Your task to perform on an android device: open device folders in google photos Image 0: 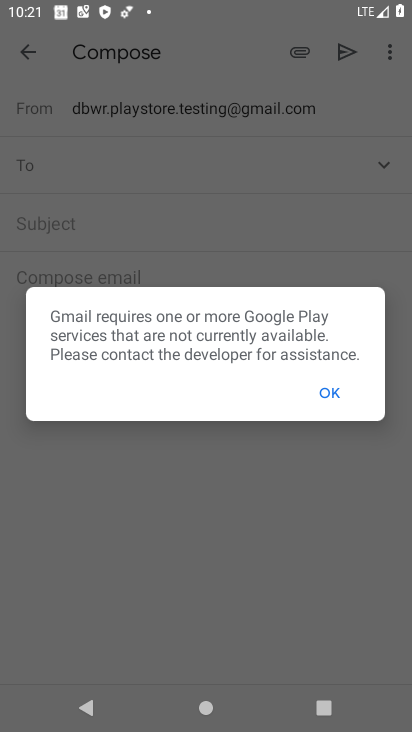
Step 0: press home button
Your task to perform on an android device: open device folders in google photos Image 1: 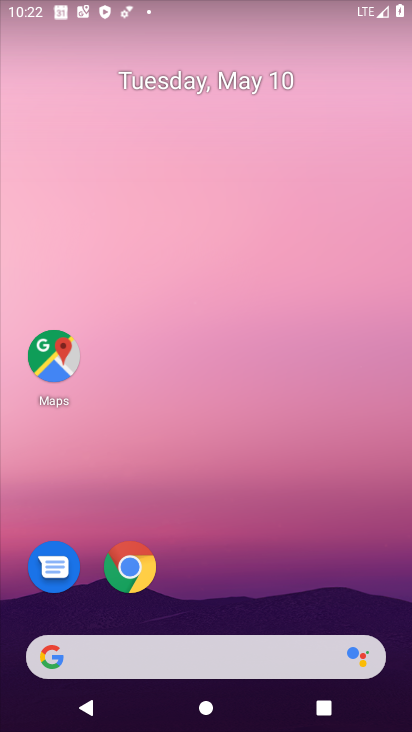
Step 1: drag from (93, 507) to (243, 154)
Your task to perform on an android device: open device folders in google photos Image 2: 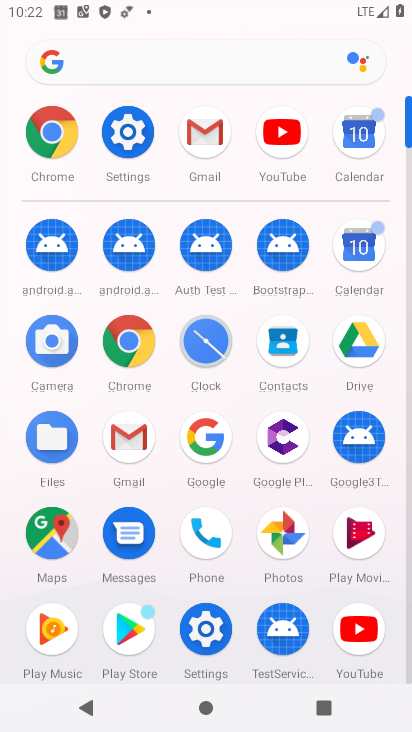
Step 2: click (286, 537)
Your task to perform on an android device: open device folders in google photos Image 3: 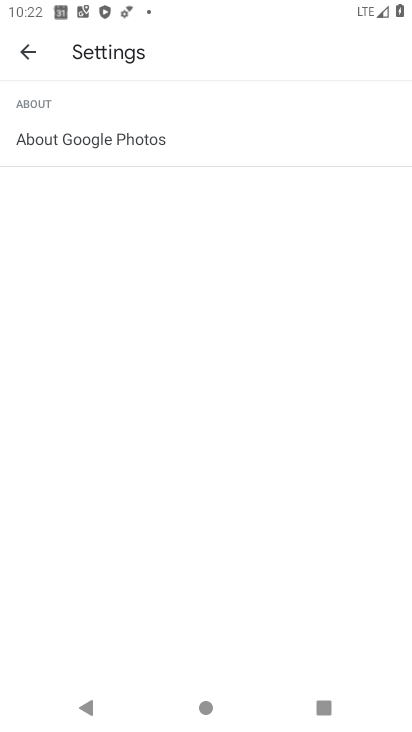
Step 3: press back button
Your task to perform on an android device: open device folders in google photos Image 4: 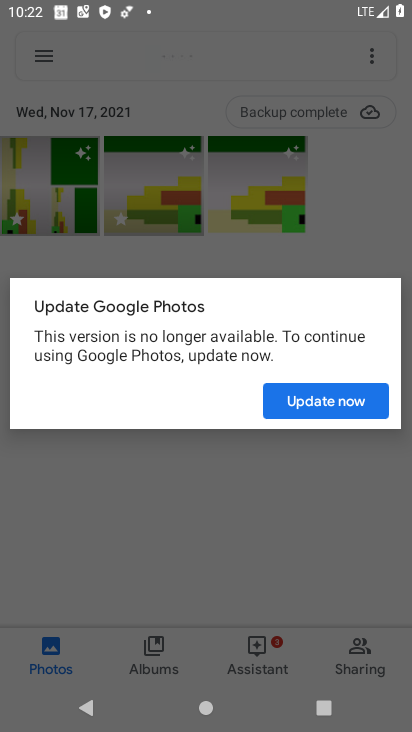
Step 4: press back button
Your task to perform on an android device: open device folders in google photos Image 5: 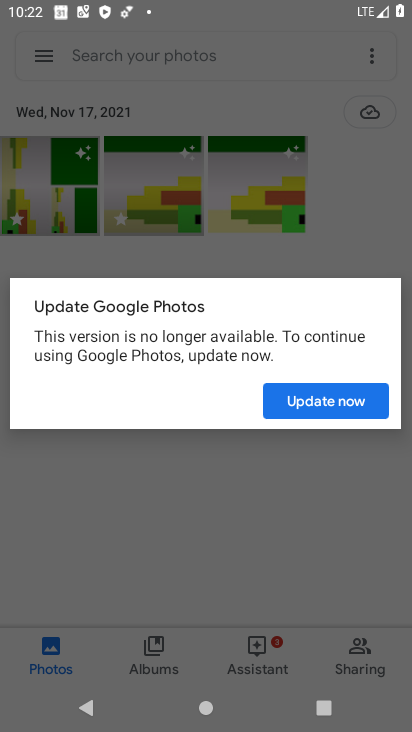
Step 5: click (304, 405)
Your task to perform on an android device: open device folders in google photos Image 6: 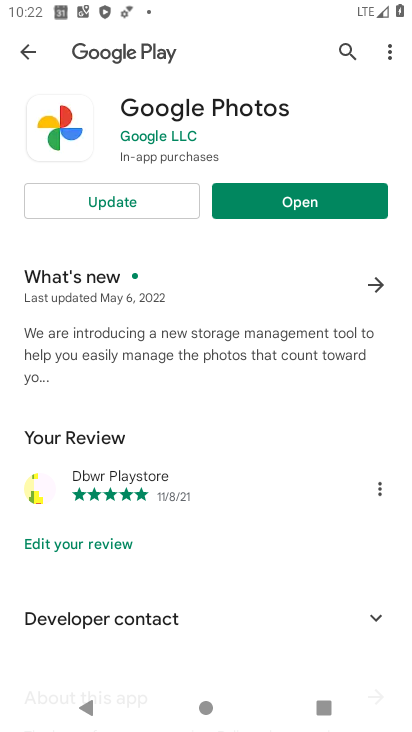
Step 6: click (250, 207)
Your task to perform on an android device: open device folders in google photos Image 7: 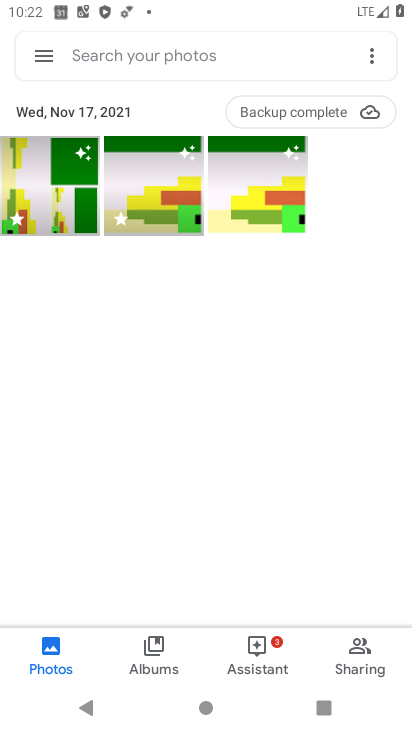
Step 7: click (56, 57)
Your task to perform on an android device: open device folders in google photos Image 8: 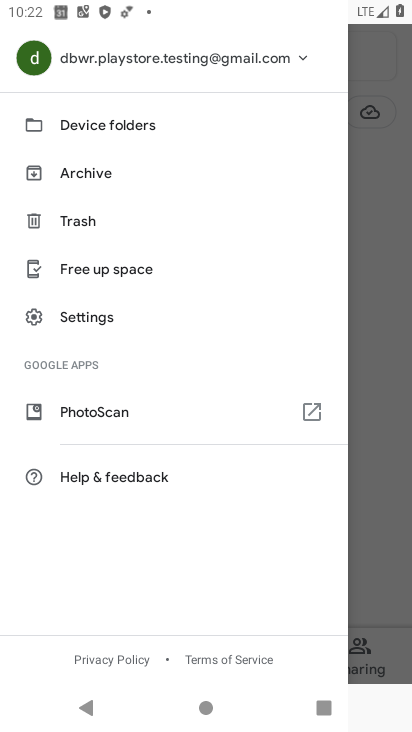
Step 8: click (81, 127)
Your task to perform on an android device: open device folders in google photos Image 9: 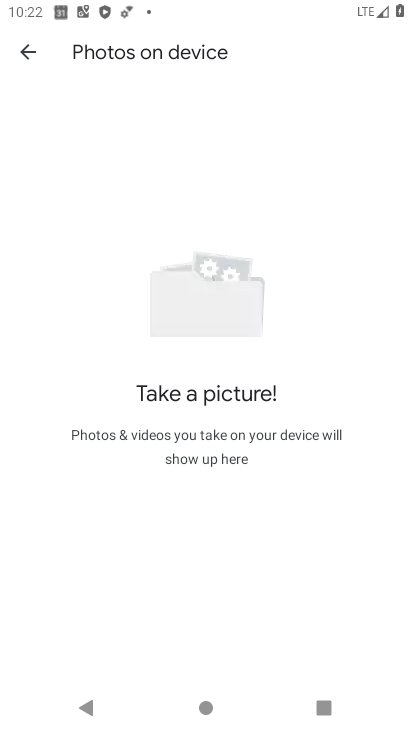
Step 9: task complete